Your task to perform on an android device: toggle pop-ups in chrome Image 0: 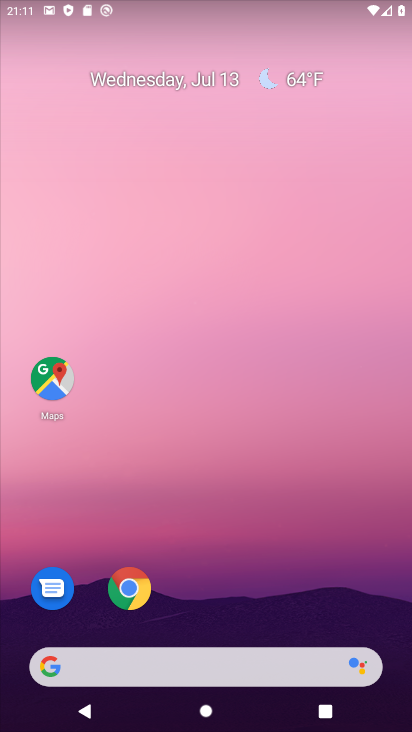
Step 0: click (122, 585)
Your task to perform on an android device: toggle pop-ups in chrome Image 1: 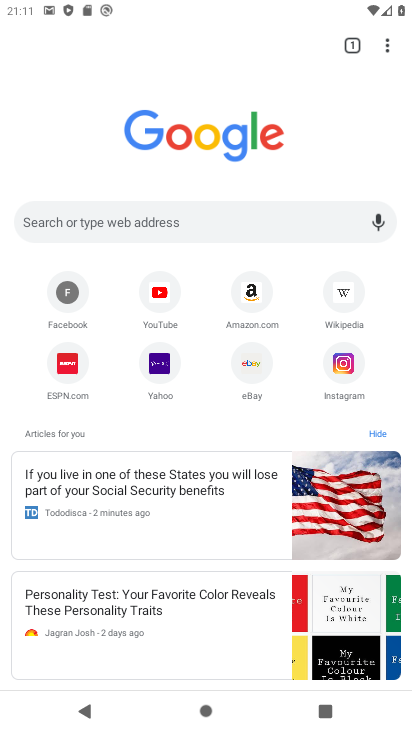
Step 1: drag from (390, 38) to (229, 379)
Your task to perform on an android device: toggle pop-ups in chrome Image 2: 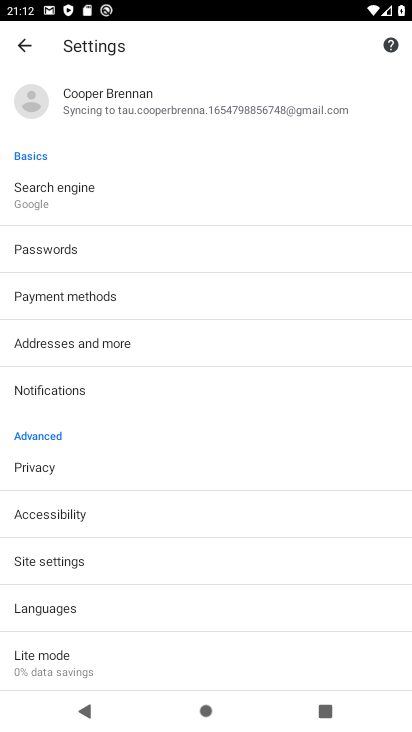
Step 2: click (40, 561)
Your task to perform on an android device: toggle pop-ups in chrome Image 3: 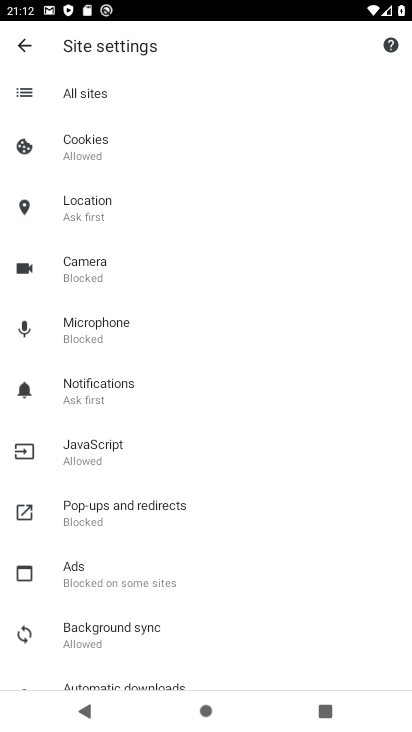
Step 3: click (116, 510)
Your task to perform on an android device: toggle pop-ups in chrome Image 4: 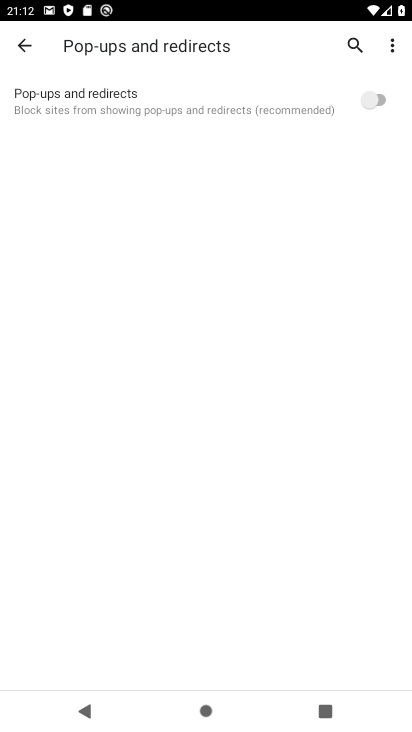
Step 4: click (367, 96)
Your task to perform on an android device: toggle pop-ups in chrome Image 5: 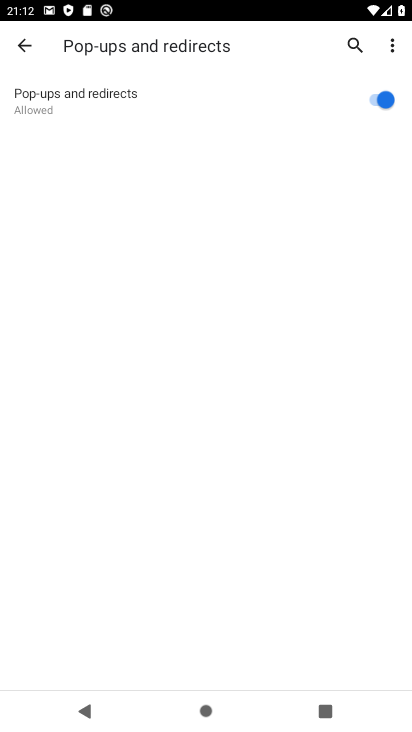
Step 5: task complete